Your task to perform on an android device: find photos in the google photos app Image 0: 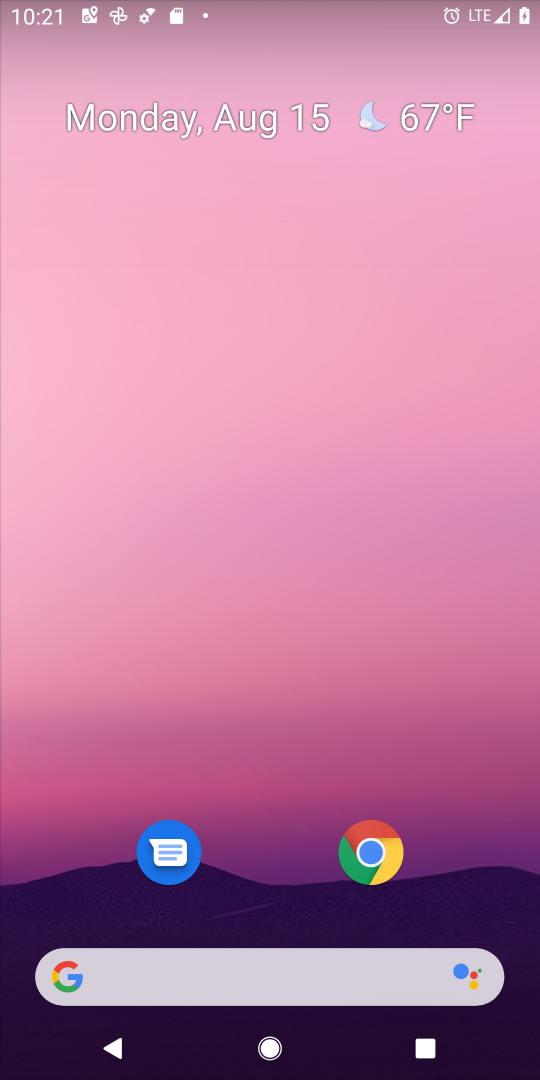
Step 0: drag from (229, 965) to (403, 103)
Your task to perform on an android device: find photos in the google photos app Image 1: 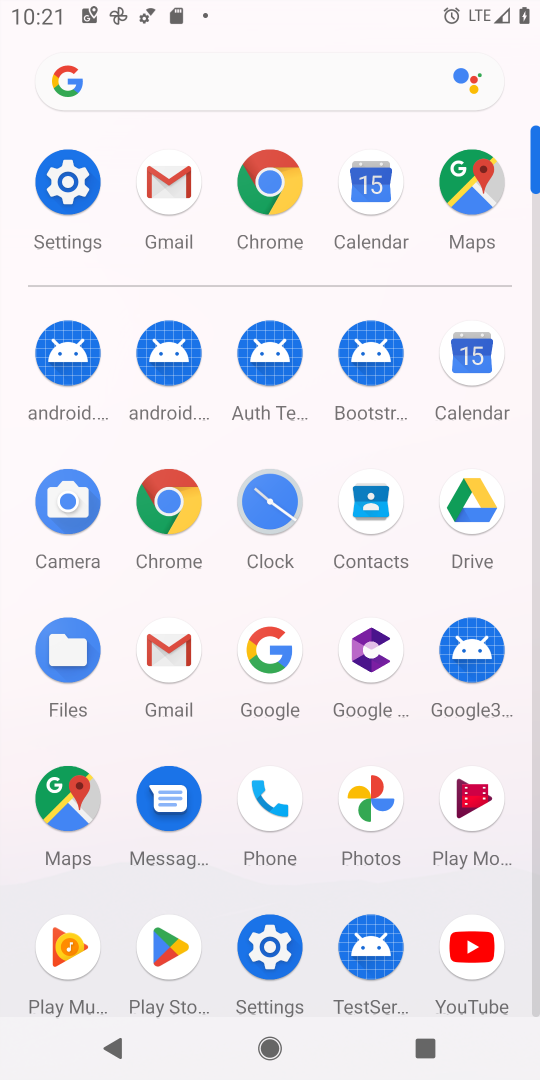
Step 1: click (371, 798)
Your task to perform on an android device: find photos in the google photos app Image 2: 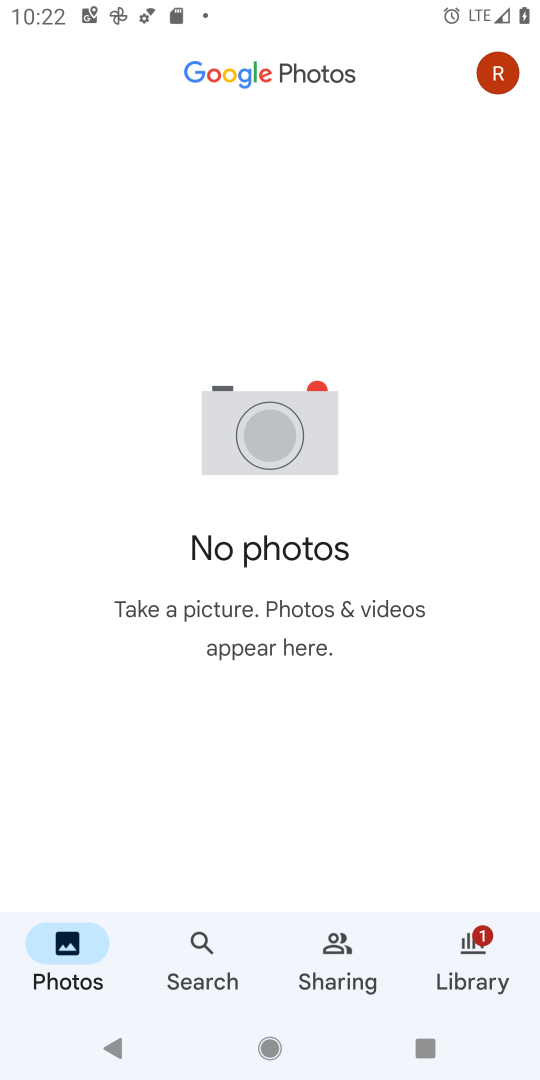
Step 2: task complete